Your task to perform on an android device: turn on the 12-hour format for clock Image 0: 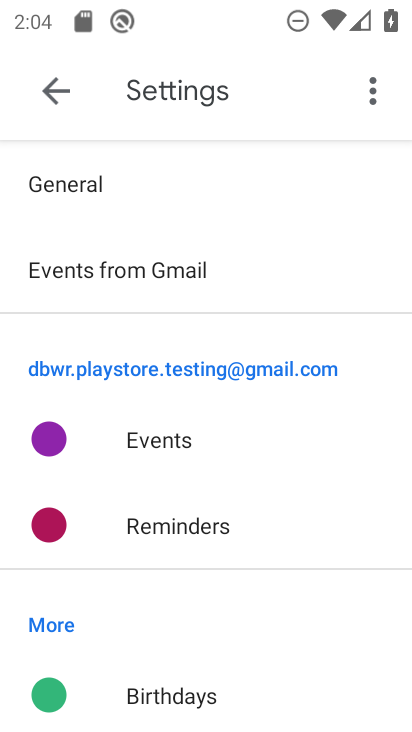
Step 0: press home button
Your task to perform on an android device: turn on the 12-hour format for clock Image 1: 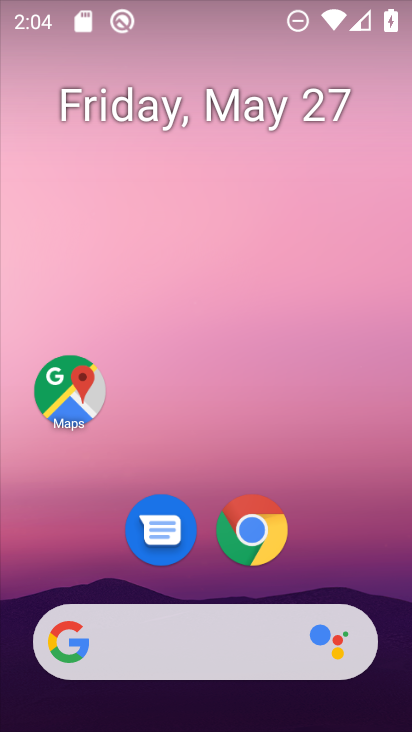
Step 1: drag from (150, 731) to (165, 33)
Your task to perform on an android device: turn on the 12-hour format for clock Image 2: 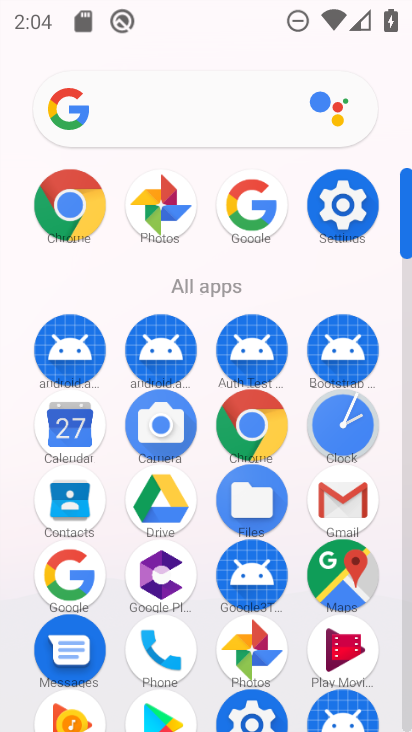
Step 2: click (344, 217)
Your task to perform on an android device: turn on the 12-hour format for clock Image 3: 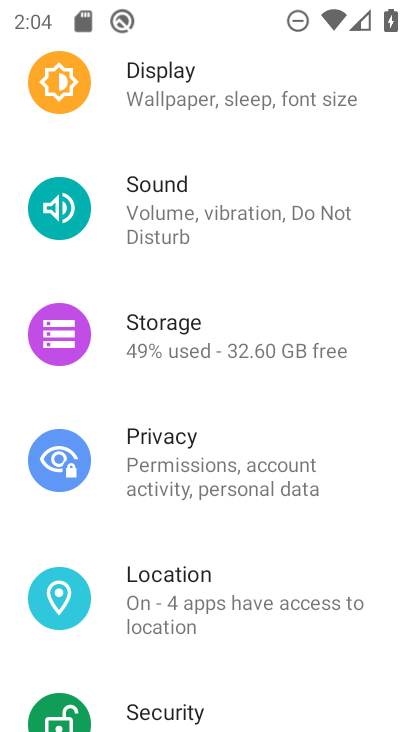
Step 3: drag from (267, 672) to (290, 199)
Your task to perform on an android device: turn on the 12-hour format for clock Image 4: 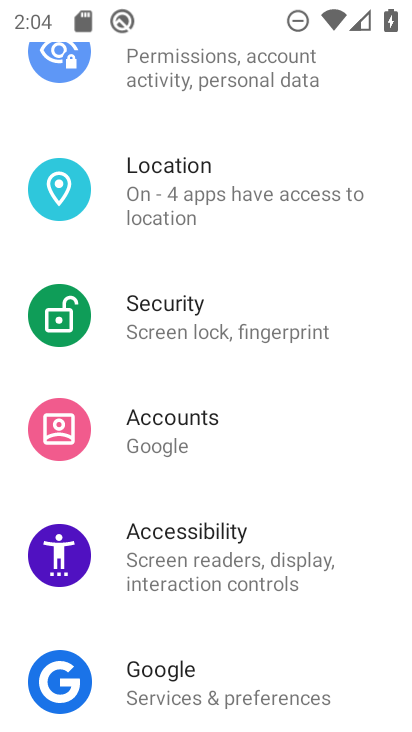
Step 4: drag from (264, 629) to (280, 192)
Your task to perform on an android device: turn on the 12-hour format for clock Image 5: 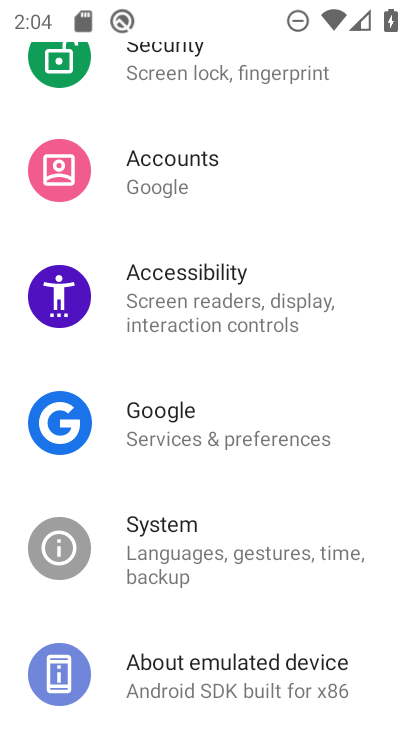
Step 5: click (282, 579)
Your task to perform on an android device: turn on the 12-hour format for clock Image 6: 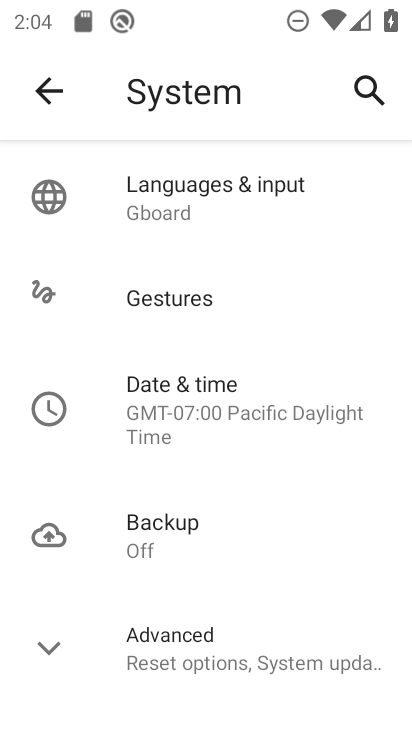
Step 6: click (228, 416)
Your task to perform on an android device: turn on the 12-hour format for clock Image 7: 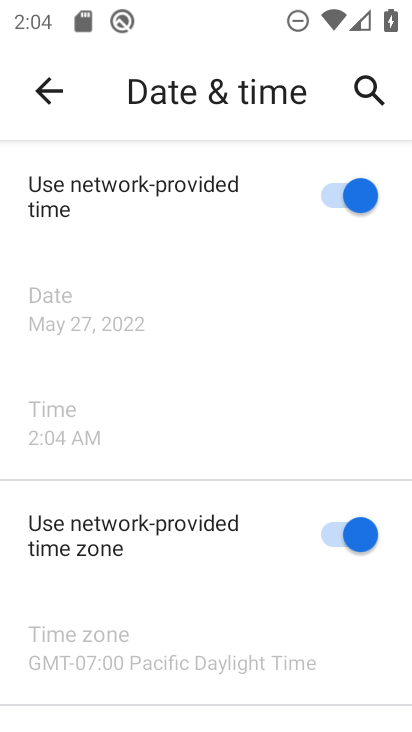
Step 7: task complete